Your task to perform on an android device: turn off priority inbox in the gmail app Image 0: 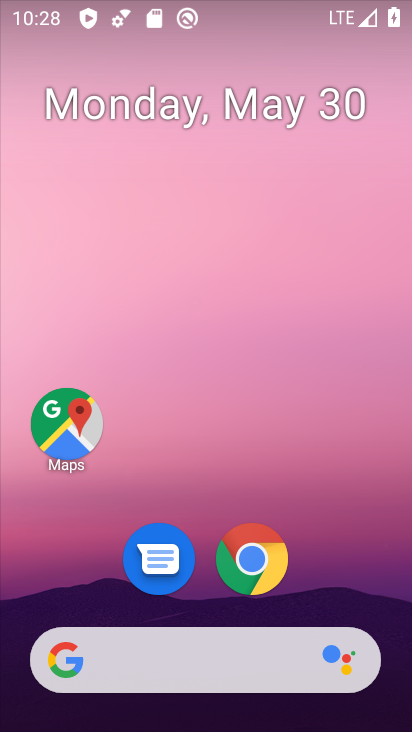
Step 0: drag from (374, 606) to (326, 188)
Your task to perform on an android device: turn off priority inbox in the gmail app Image 1: 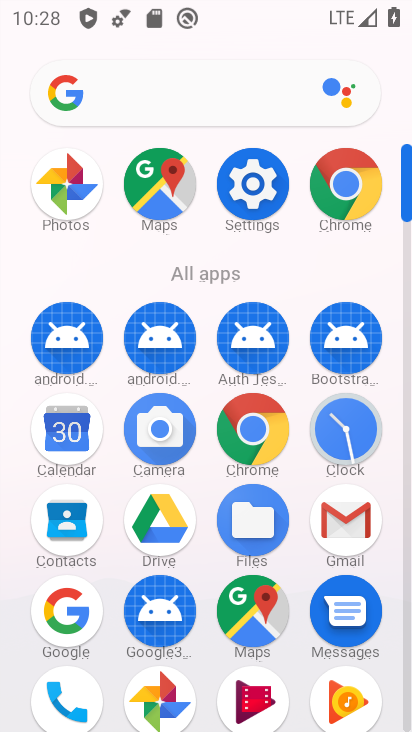
Step 1: click (361, 524)
Your task to perform on an android device: turn off priority inbox in the gmail app Image 2: 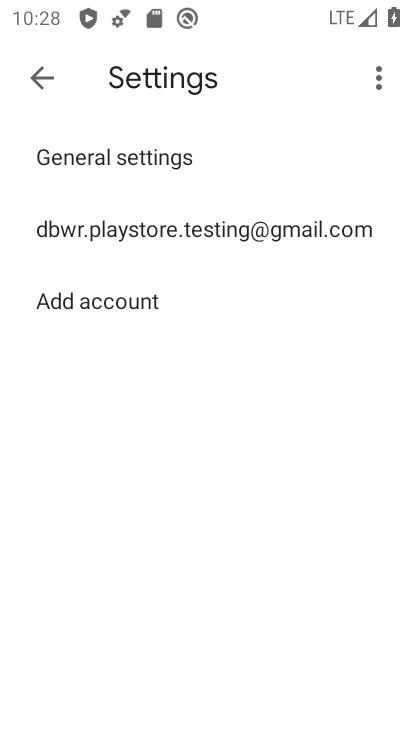
Step 2: click (311, 239)
Your task to perform on an android device: turn off priority inbox in the gmail app Image 3: 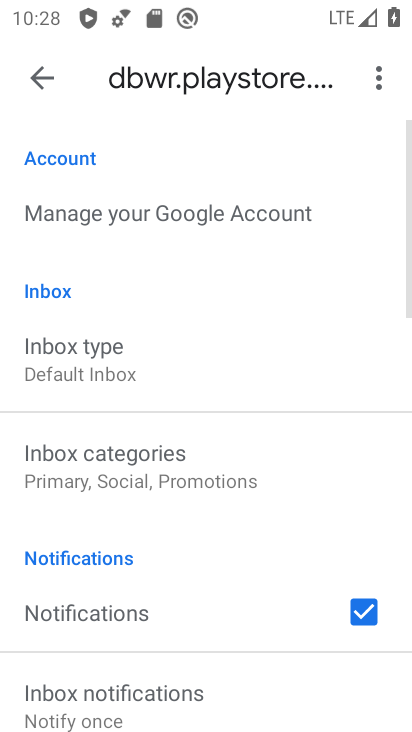
Step 3: click (263, 355)
Your task to perform on an android device: turn off priority inbox in the gmail app Image 4: 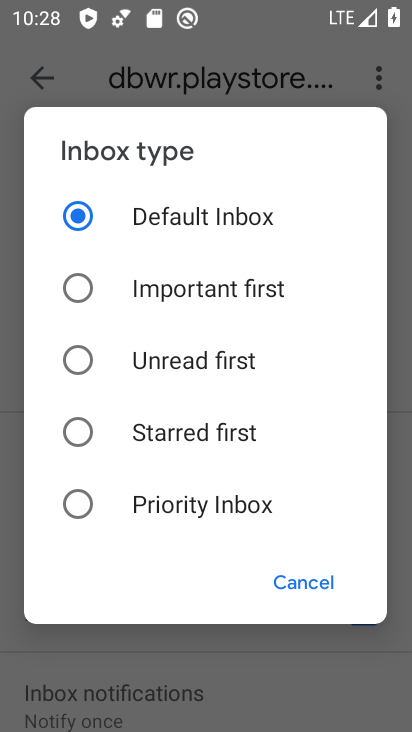
Step 4: task complete